Your task to perform on an android device: Open sound settings Image 0: 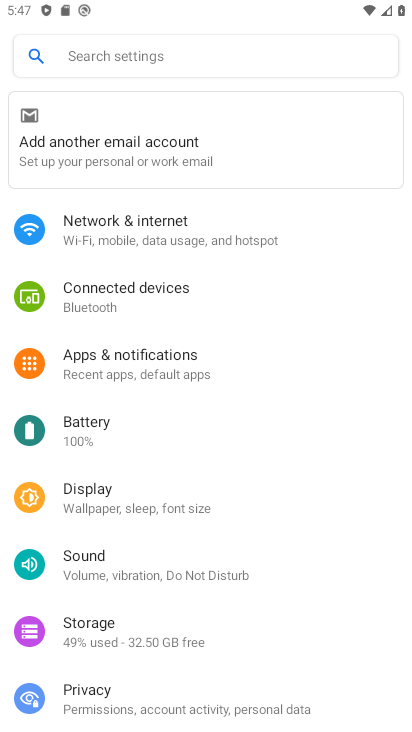
Step 0: click (114, 561)
Your task to perform on an android device: Open sound settings Image 1: 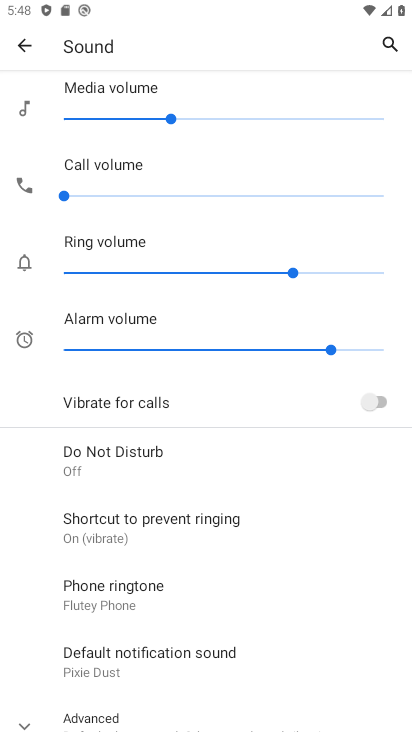
Step 1: task complete